Your task to perform on an android device: turn off translation in the chrome app Image 0: 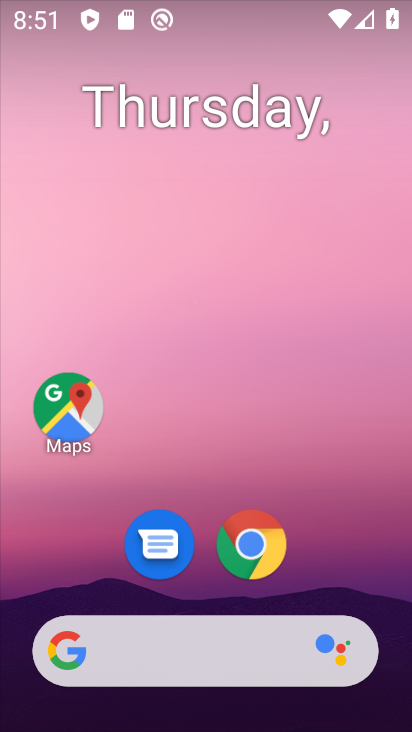
Step 0: click (256, 555)
Your task to perform on an android device: turn off translation in the chrome app Image 1: 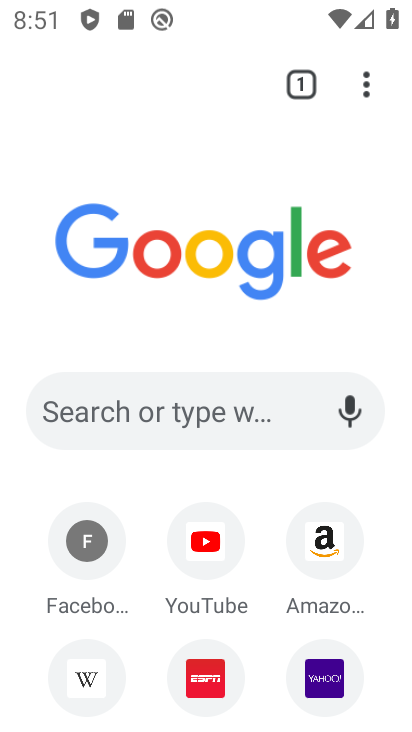
Step 1: click (364, 83)
Your task to perform on an android device: turn off translation in the chrome app Image 2: 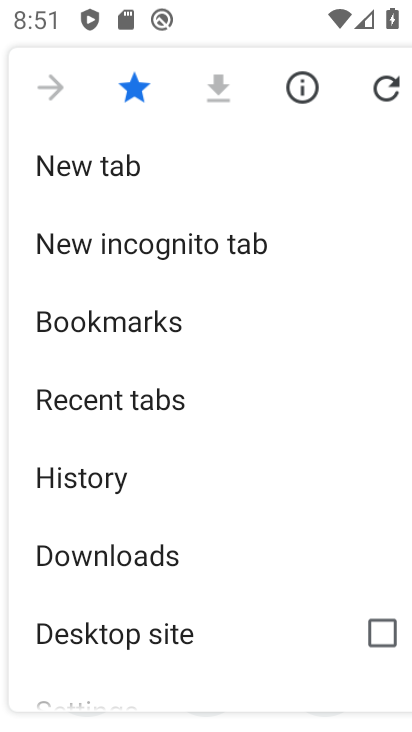
Step 2: drag from (191, 616) to (293, 24)
Your task to perform on an android device: turn off translation in the chrome app Image 3: 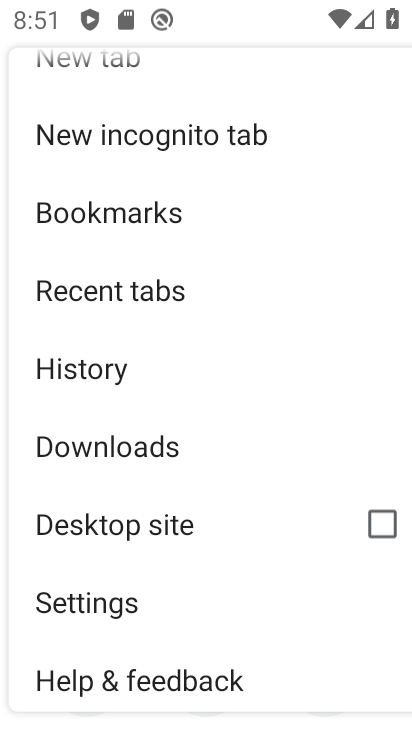
Step 3: click (108, 598)
Your task to perform on an android device: turn off translation in the chrome app Image 4: 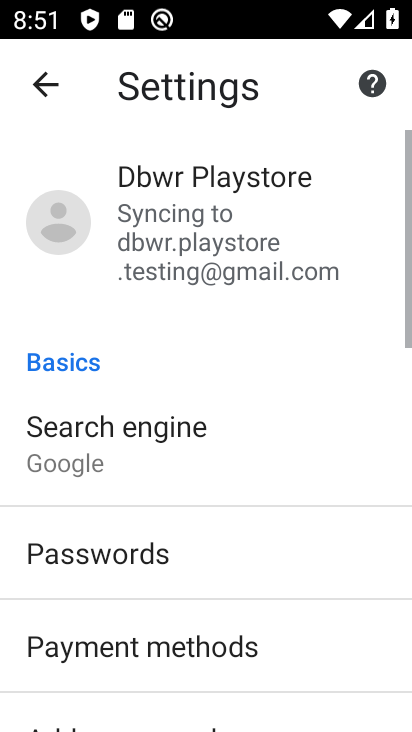
Step 4: drag from (180, 652) to (131, 41)
Your task to perform on an android device: turn off translation in the chrome app Image 5: 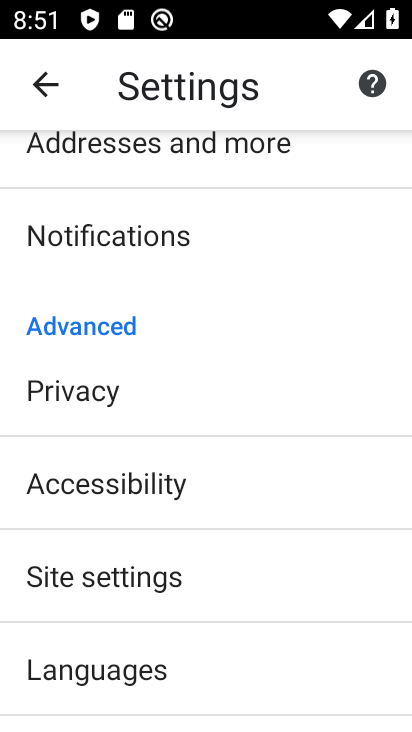
Step 5: click (158, 673)
Your task to perform on an android device: turn off translation in the chrome app Image 6: 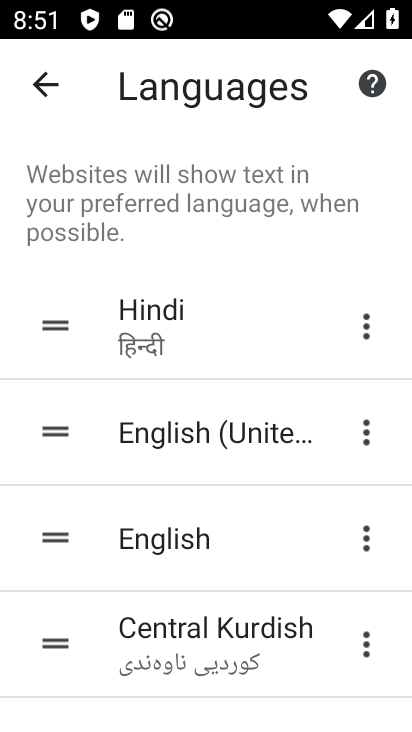
Step 6: task complete